Your task to perform on an android device: remove spam from my inbox in the gmail app Image 0: 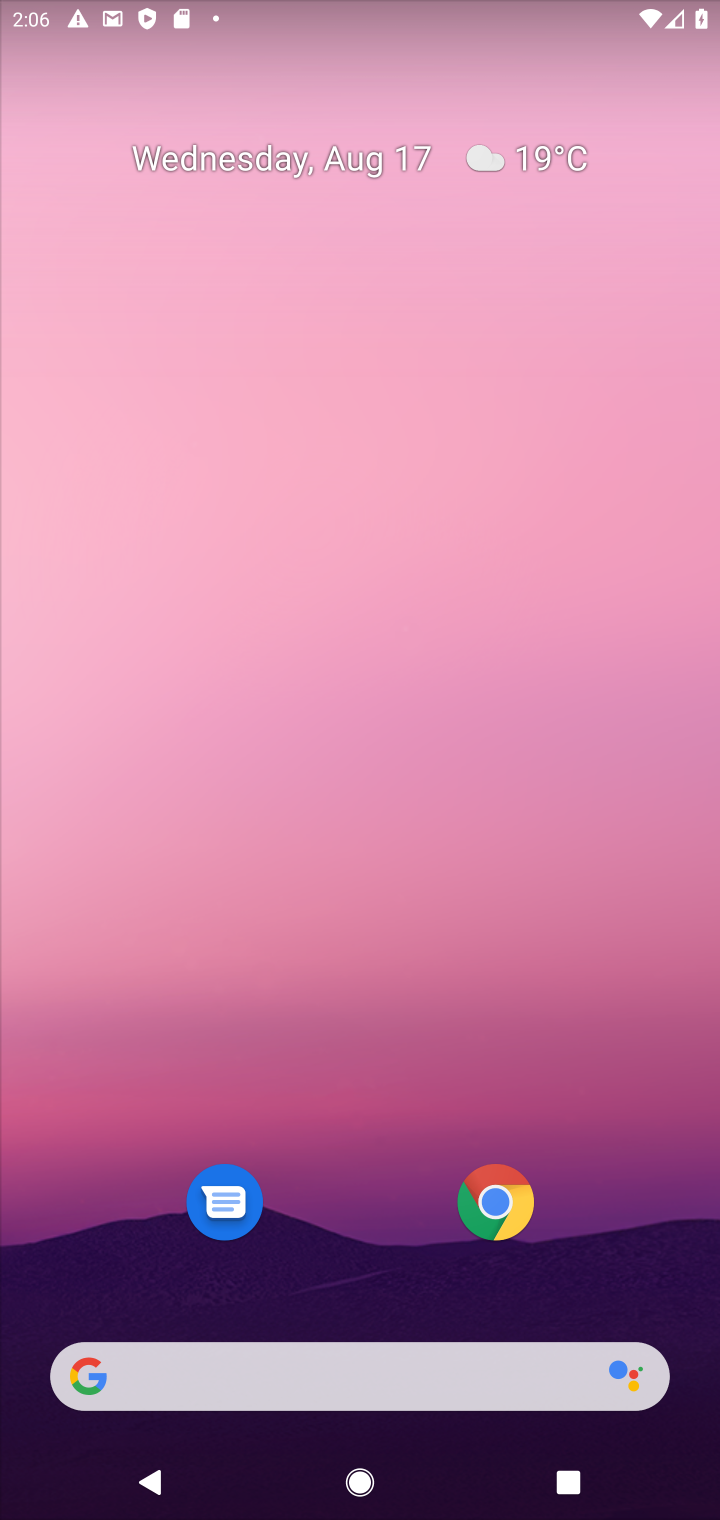
Step 0: drag from (393, 1315) to (485, 45)
Your task to perform on an android device: remove spam from my inbox in the gmail app Image 1: 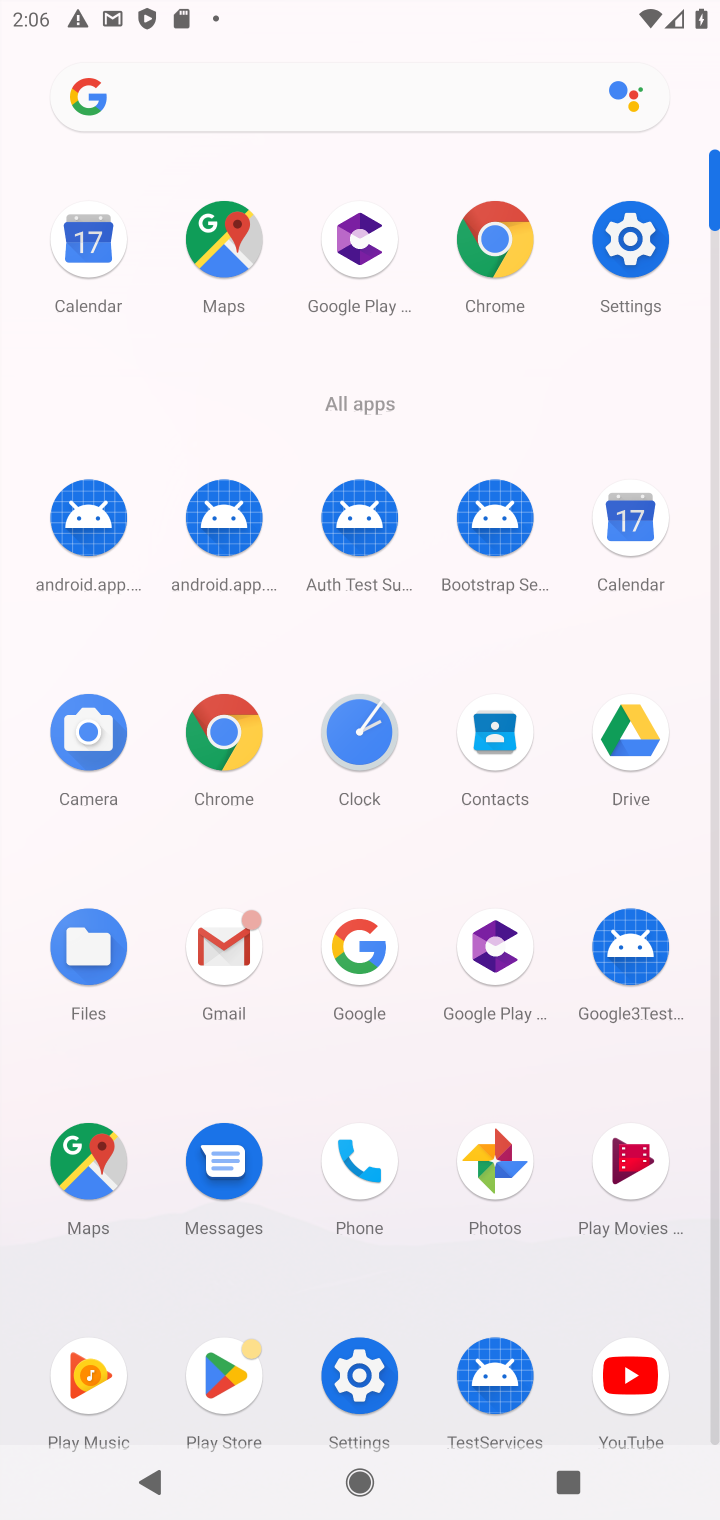
Step 1: click (238, 933)
Your task to perform on an android device: remove spam from my inbox in the gmail app Image 2: 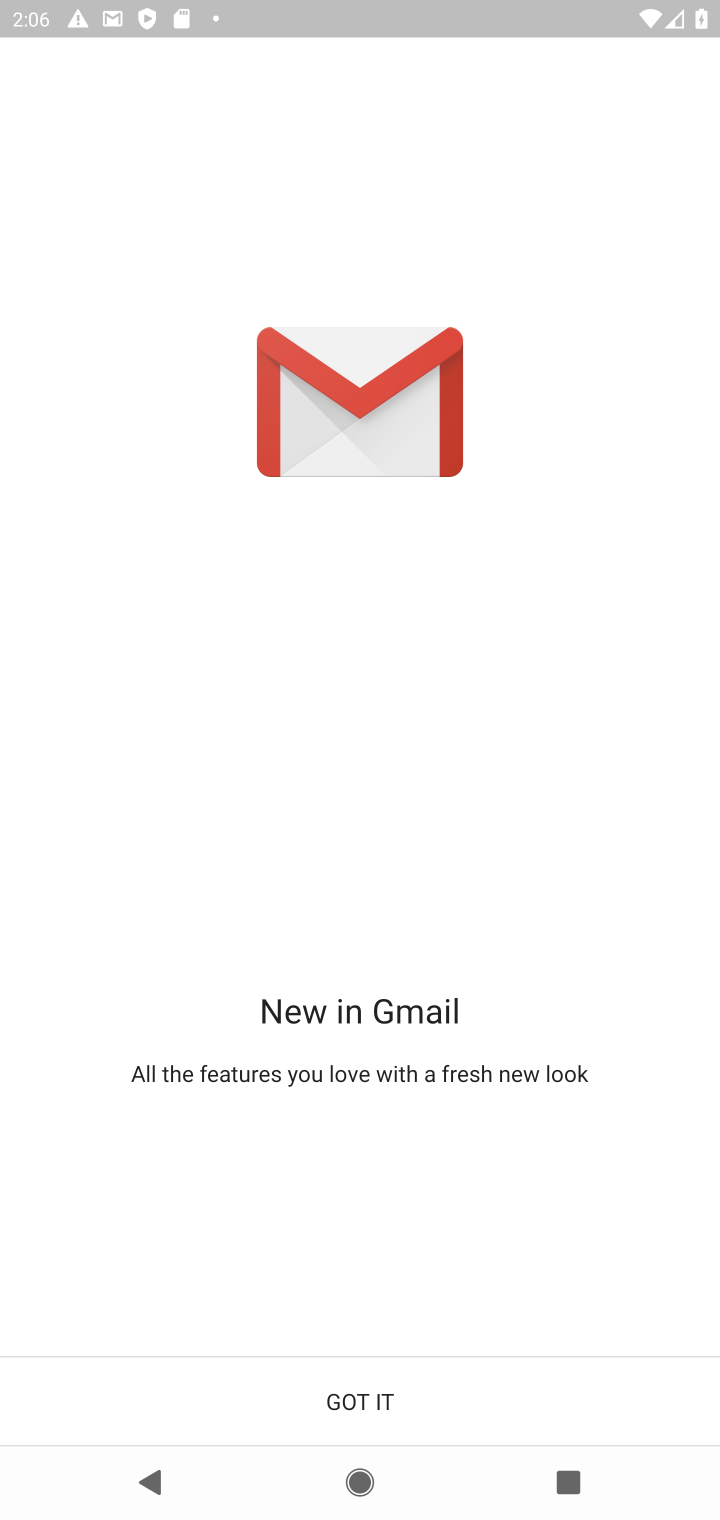
Step 2: click (303, 1412)
Your task to perform on an android device: remove spam from my inbox in the gmail app Image 3: 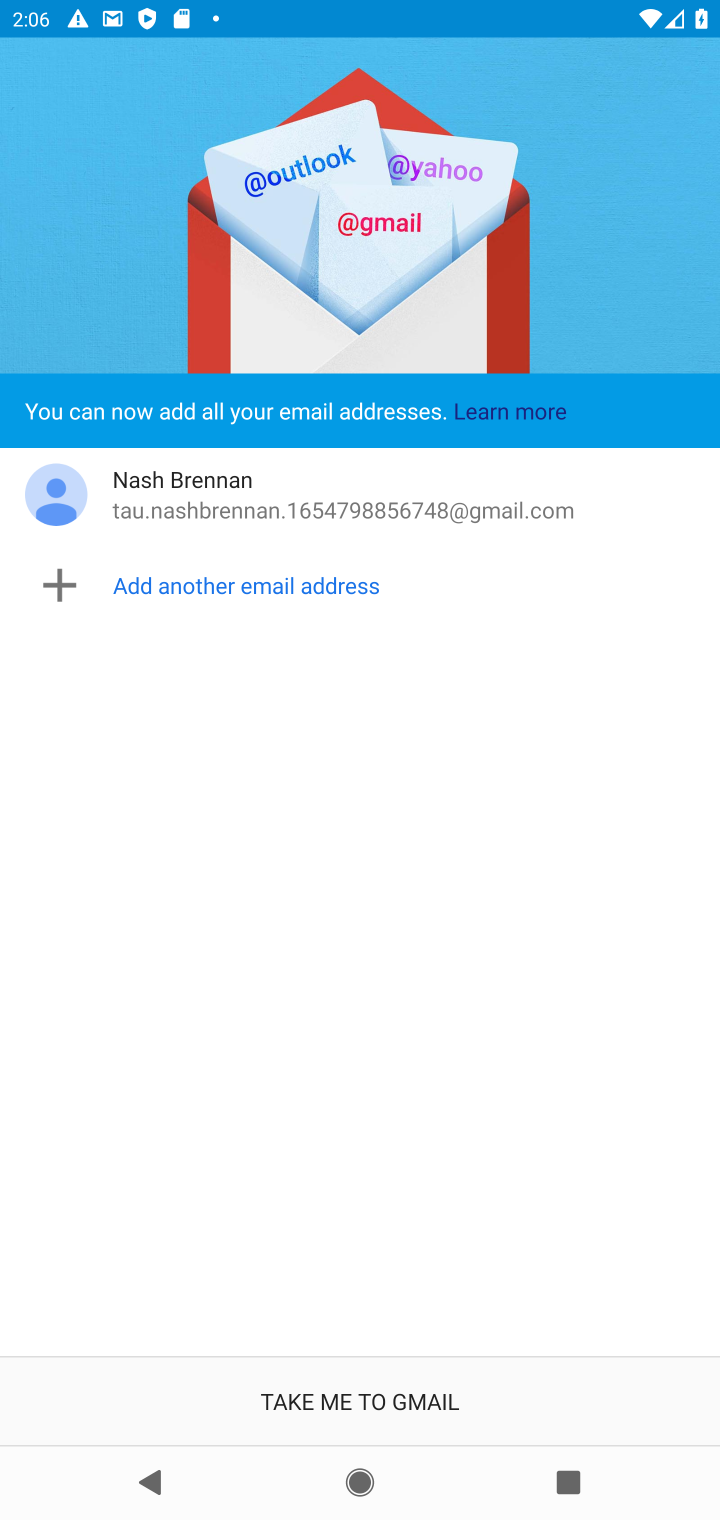
Step 3: click (275, 1429)
Your task to perform on an android device: remove spam from my inbox in the gmail app Image 4: 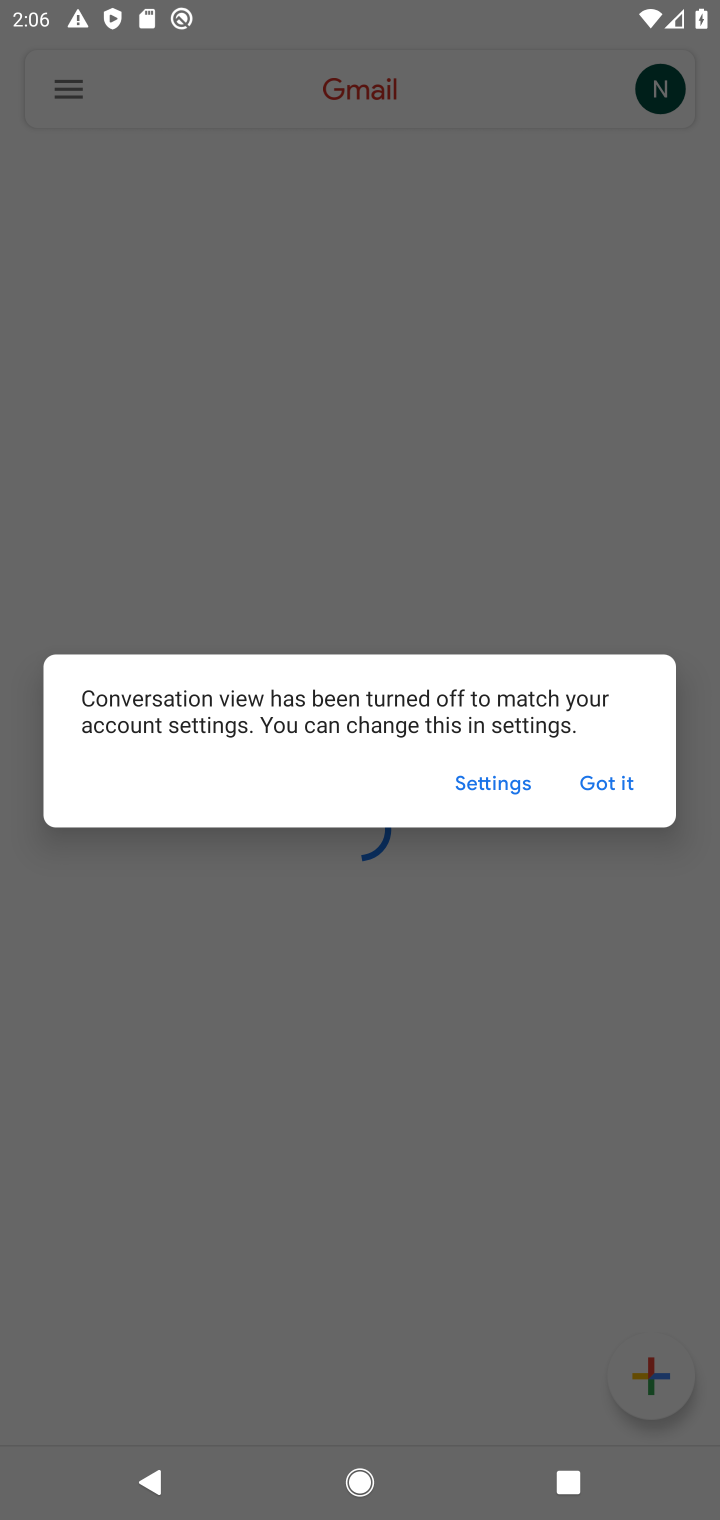
Step 4: click (597, 789)
Your task to perform on an android device: remove spam from my inbox in the gmail app Image 5: 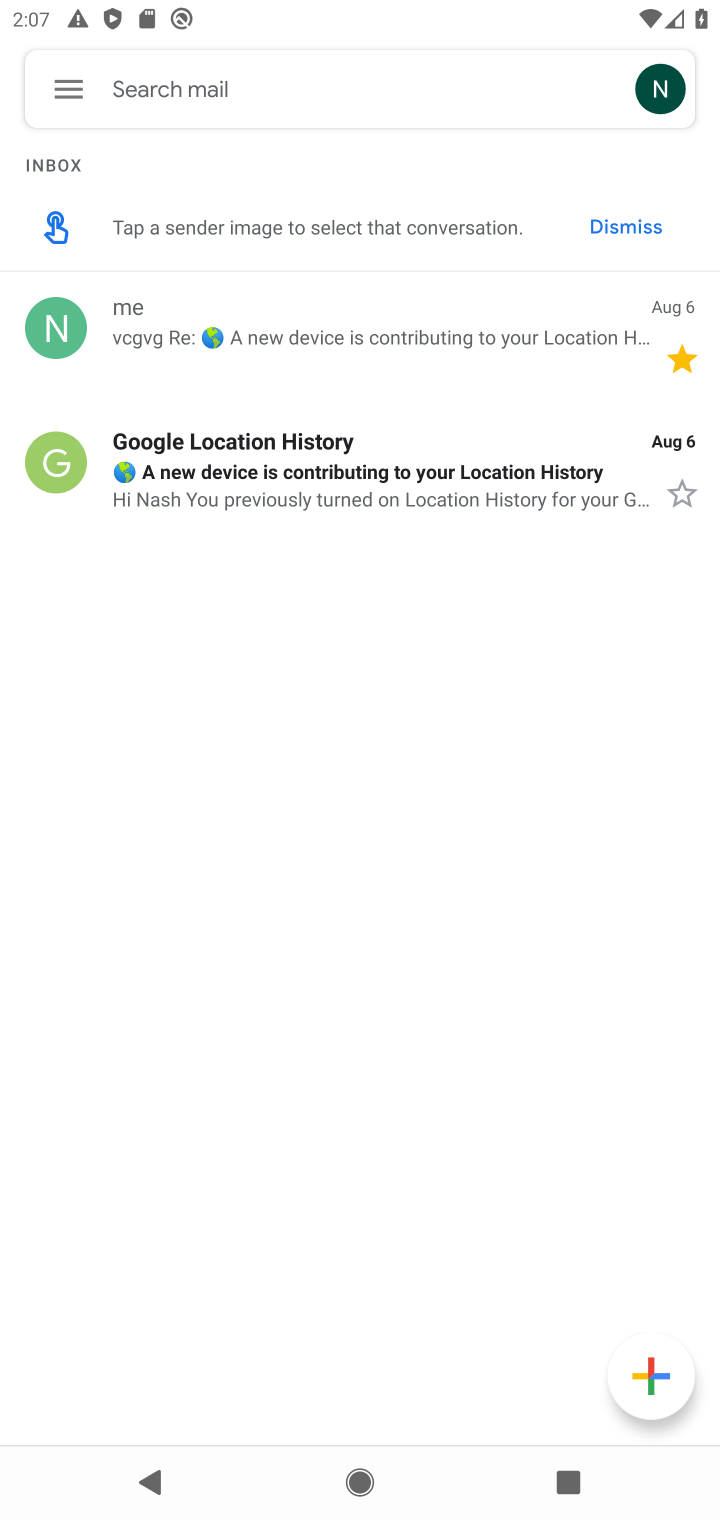
Step 5: click (72, 71)
Your task to perform on an android device: remove spam from my inbox in the gmail app Image 6: 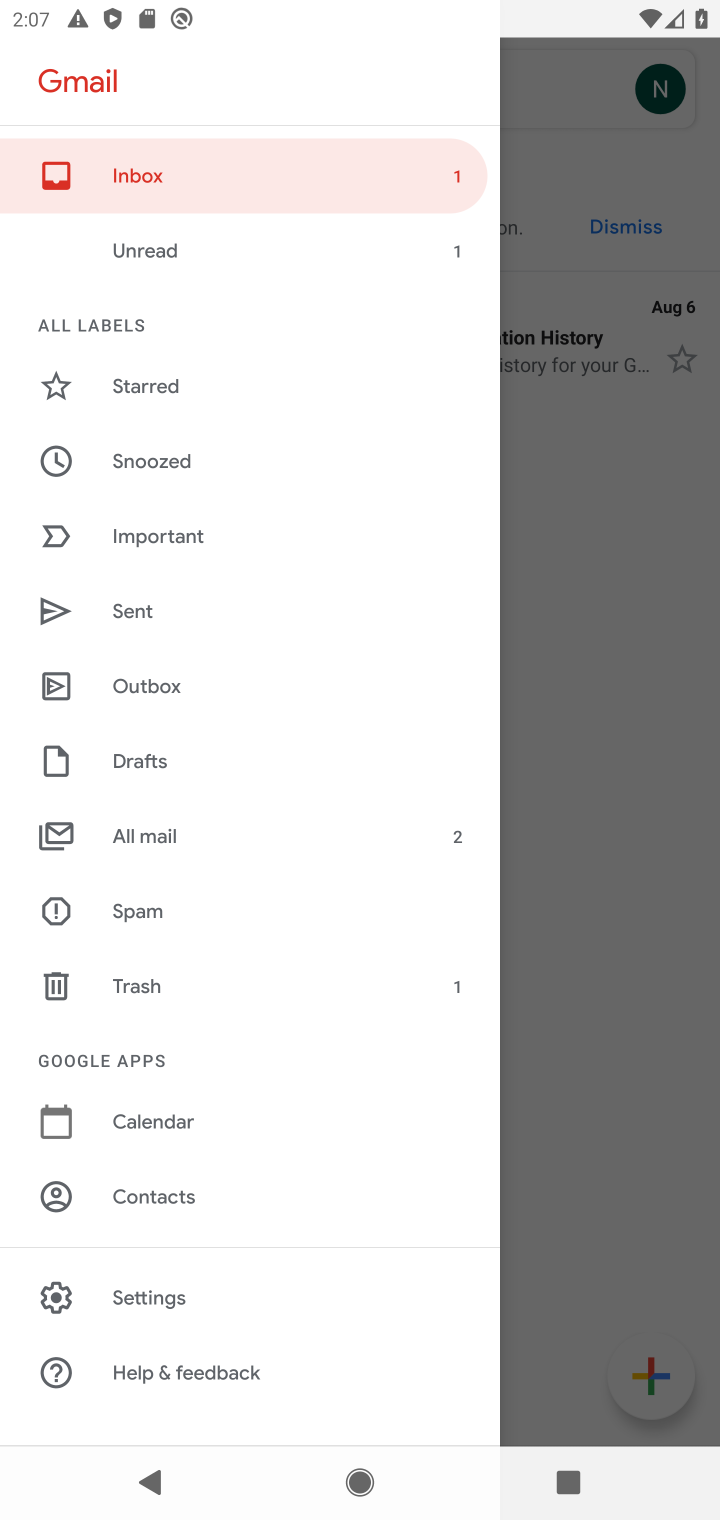
Step 6: click (144, 914)
Your task to perform on an android device: remove spam from my inbox in the gmail app Image 7: 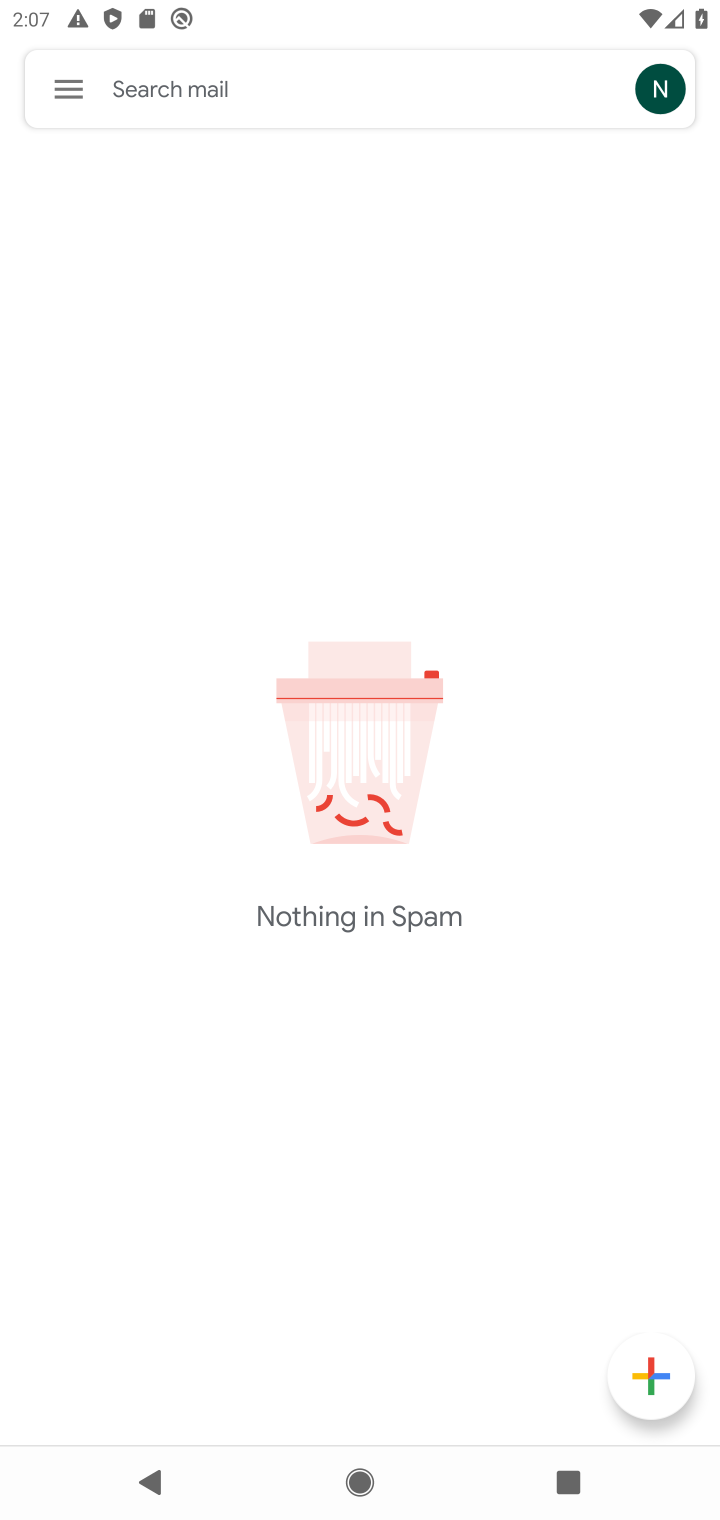
Step 7: task complete